Your task to perform on an android device: remove spam from my inbox in the gmail app Image 0: 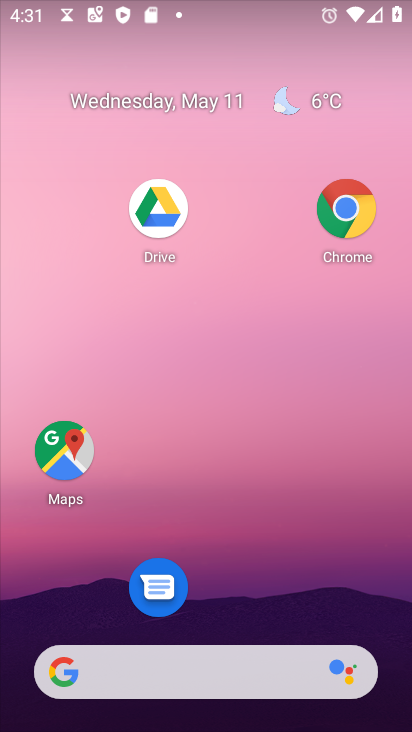
Step 0: drag from (276, 491) to (270, 217)
Your task to perform on an android device: remove spam from my inbox in the gmail app Image 1: 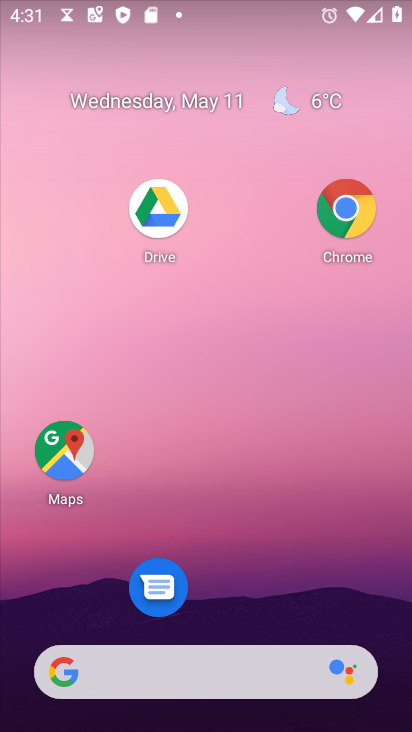
Step 1: drag from (269, 581) to (227, 41)
Your task to perform on an android device: remove spam from my inbox in the gmail app Image 2: 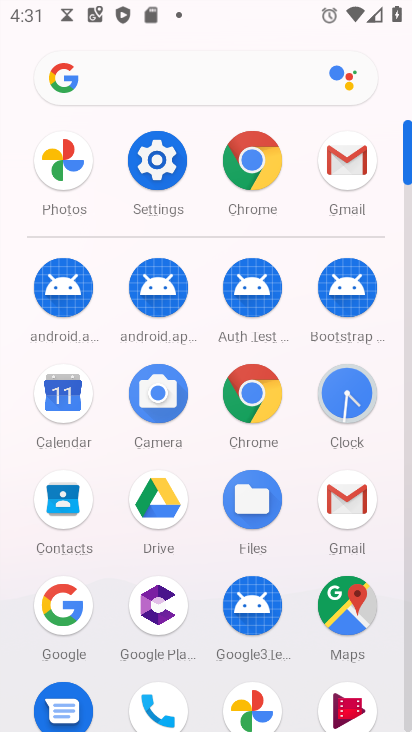
Step 2: click (347, 510)
Your task to perform on an android device: remove spam from my inbox in the gmail app Image 3: 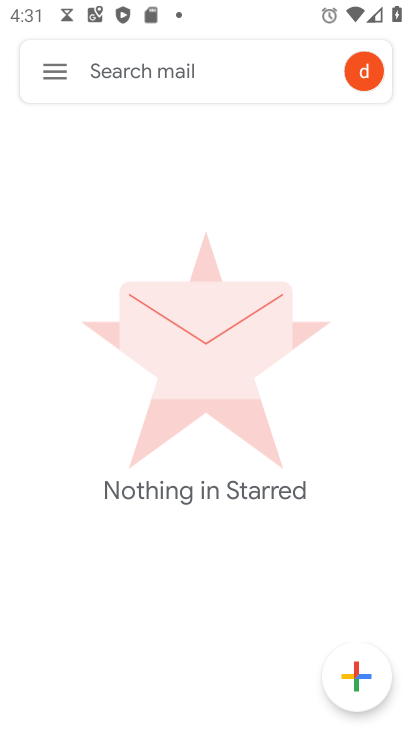
Step 3: task complete